Your task to perform on an android device: Open the web browser Image 0: 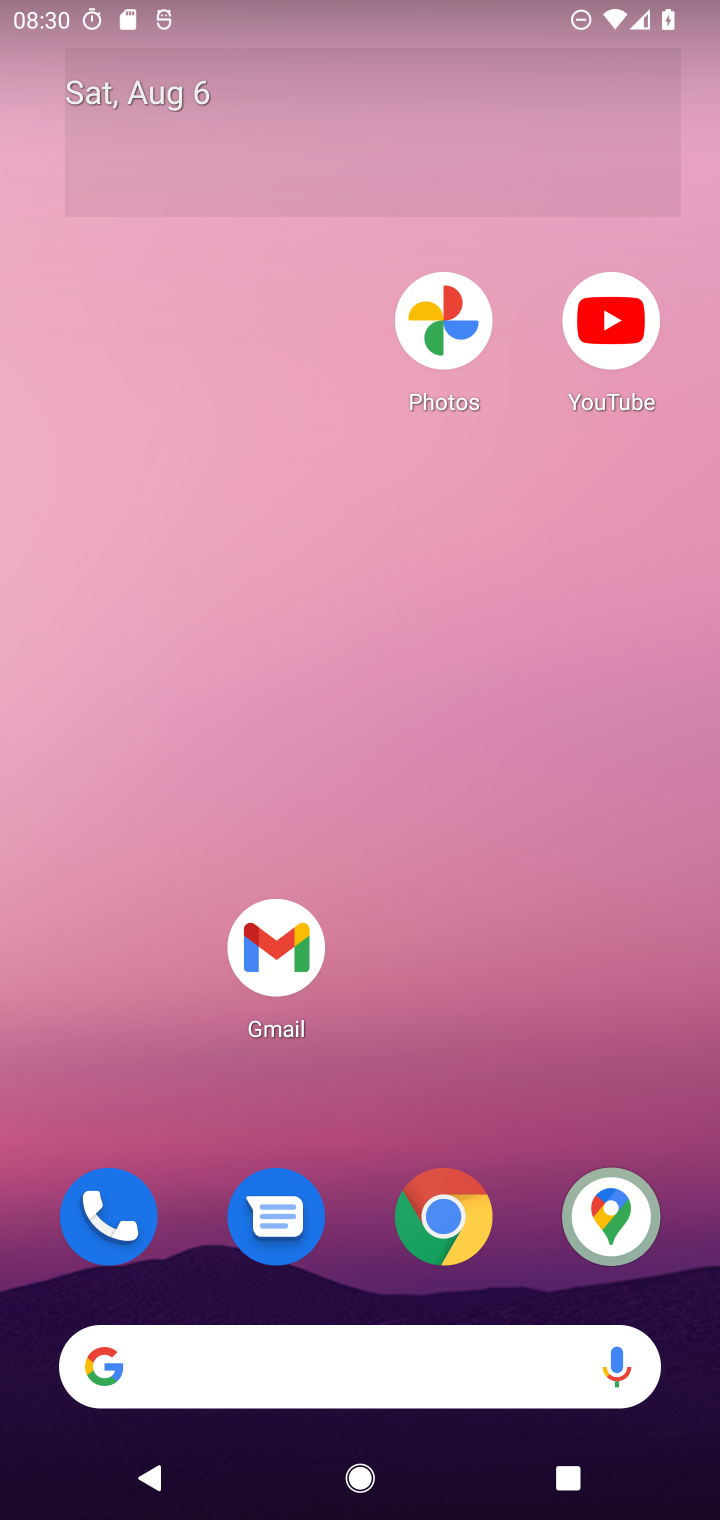
Step 0: drag from (388, 783) to (500, 179)
Your task to perform on an android device: Open the web browser Image 1: 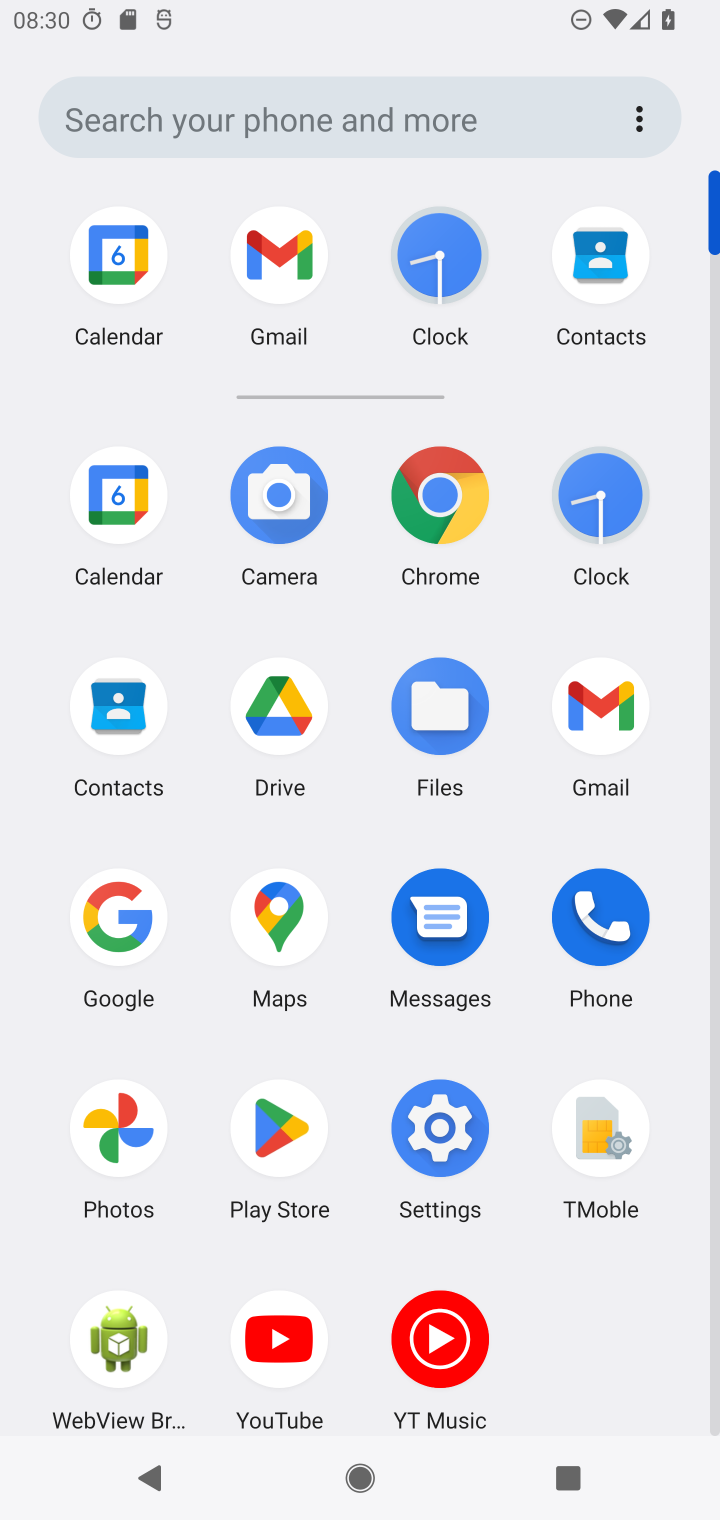
Step 1: click (421, 476)
Your task to perform on an android device: Open the web browser Image 2: 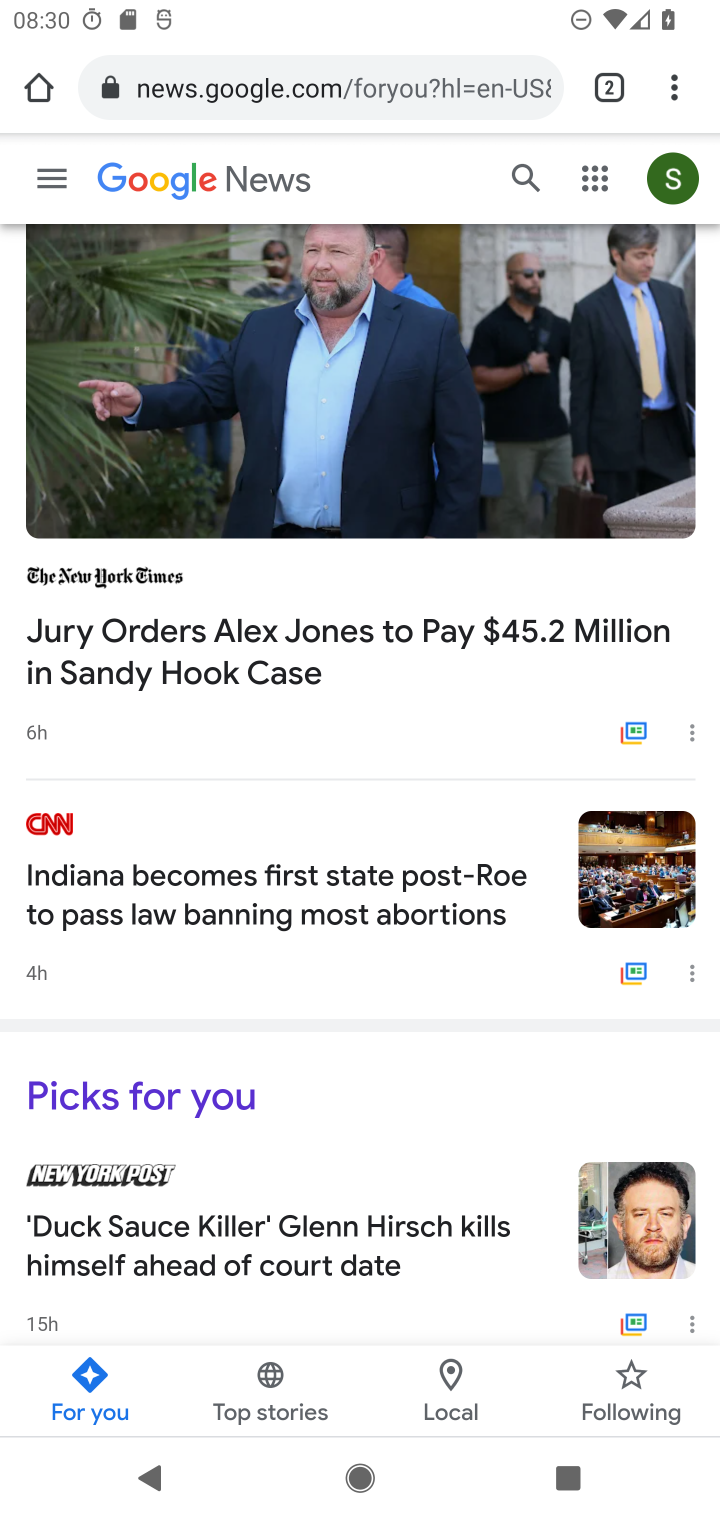
Step 2: task complete